Your task to perform on an android device: add a contact in the contacts app Image 0: 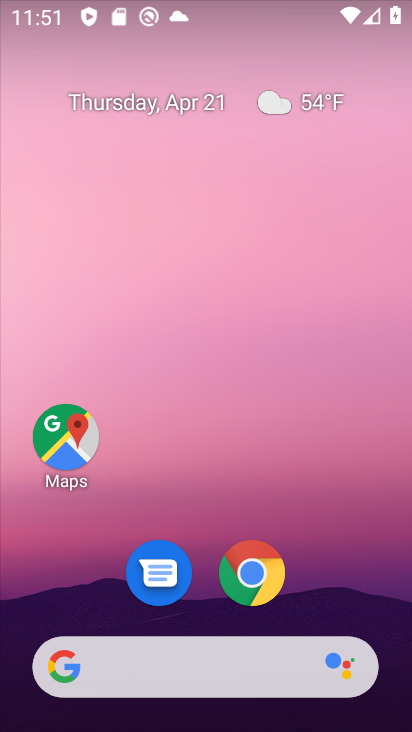
Step 0: drag from (358, 584) to (319, 132)
Your task to perform on an android device: add a contact in the contacts app Image 1: 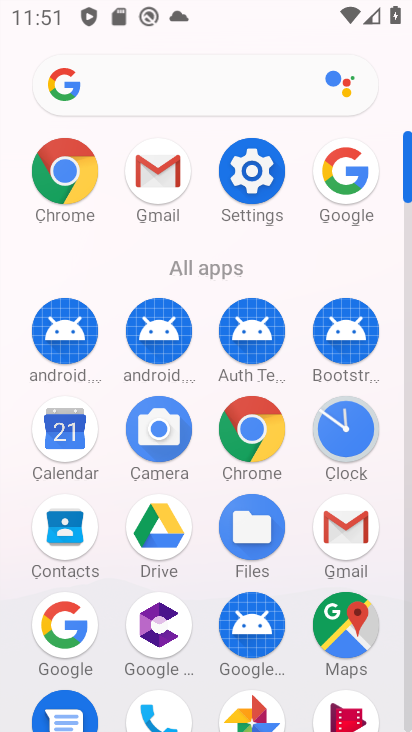
Step 1: click (72, 538)
Your task to perform on an android device: add a contact in the contacts app Image 2: 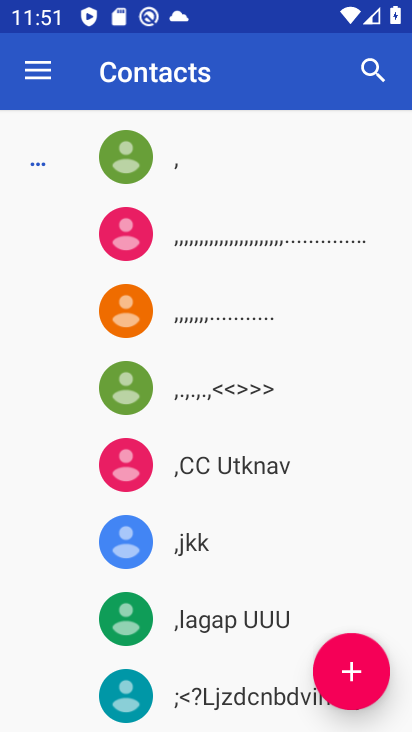
Step 2: click (361, 678)
Your task to perform on an android device: add a contact in the contacts app Image 3: 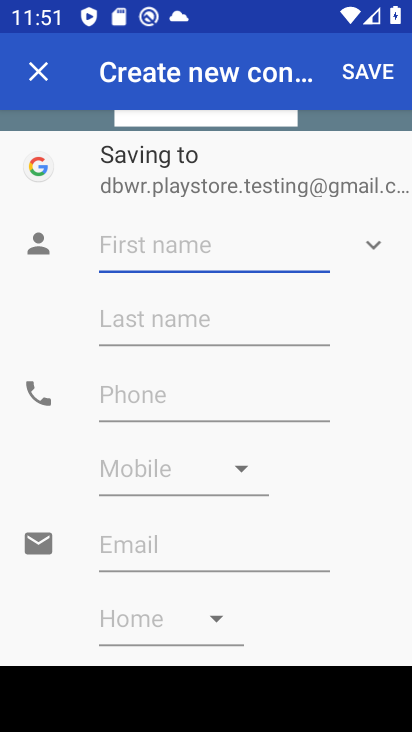
Step 3: type "aditya verma"
Your task to perform on an android device: add a contact in the contacts app Image 4: 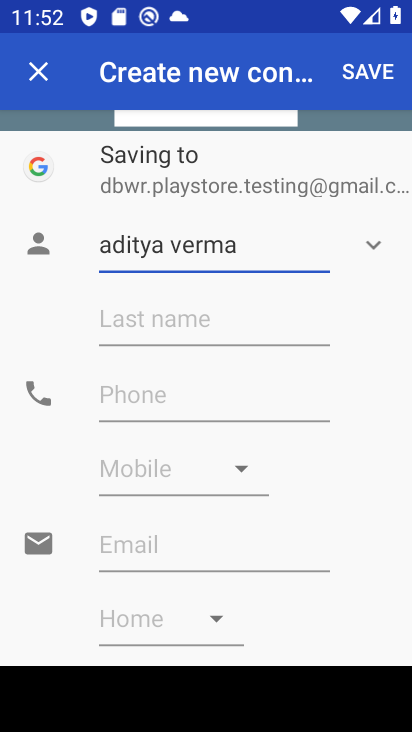
Step 4: click (223, 396)
Your task to perform on an android device: add a contact in the contacts app Image 5: 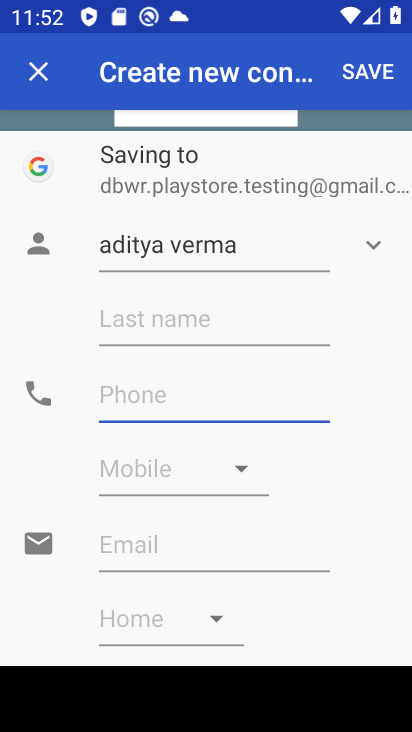
Step 5: type "9892929382"
Your task to perform on an android device: add a contact in the contacts app Image 6: 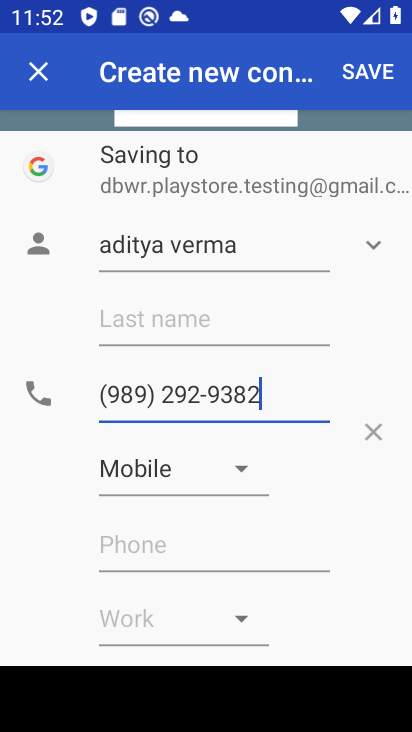
Step 6: click (362, 74)
Your task to perform on an android device: add a contact in the contacts app Image 7: 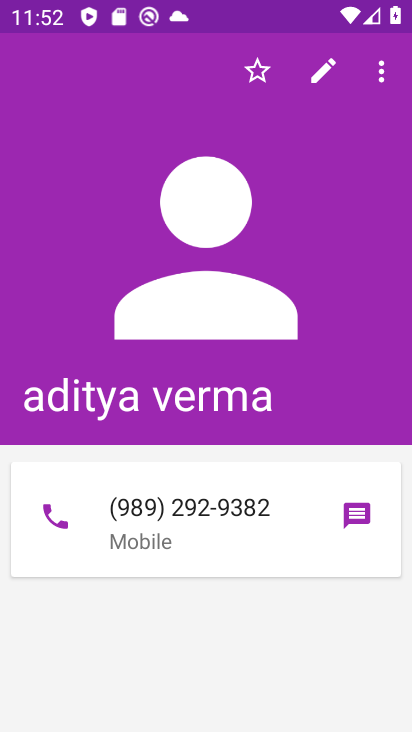
Step 7: task complete